Your task to perform on an android device: Open Google Chrome and click the shortcut for Amazon.com Image 0: 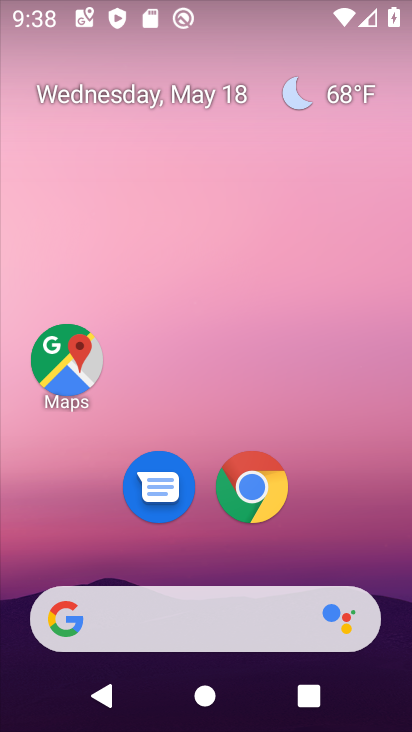
Step 0: drag from (348, 550) to (321, 151)
Your task to perform on an android device: Open Google Chrome and click the shortcut for Amazon.com Image 1: 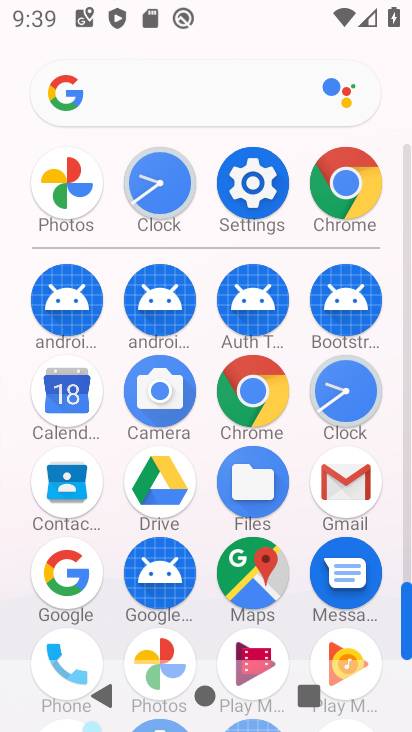
Step 1: drag from (214, 576) to (196, 317)
Your task to perform on an android device: Open Google Chrome and click the shortcut for Amazon.com Image 2: 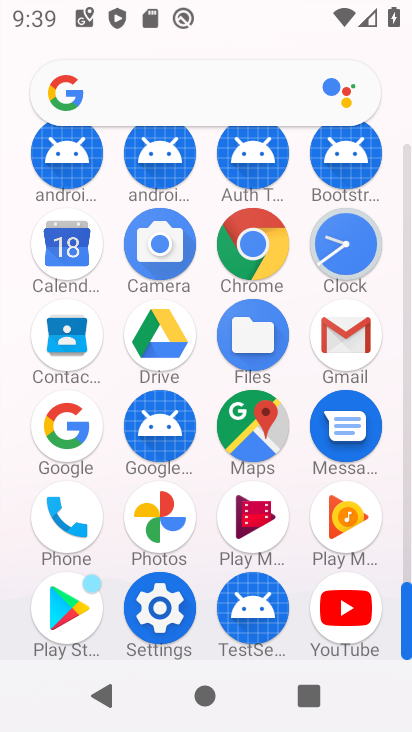
Step 2: click (247, 255)
Your task to perform on an android device: Open Google Chrome and click the shortcut for Amazon.com Image 3: 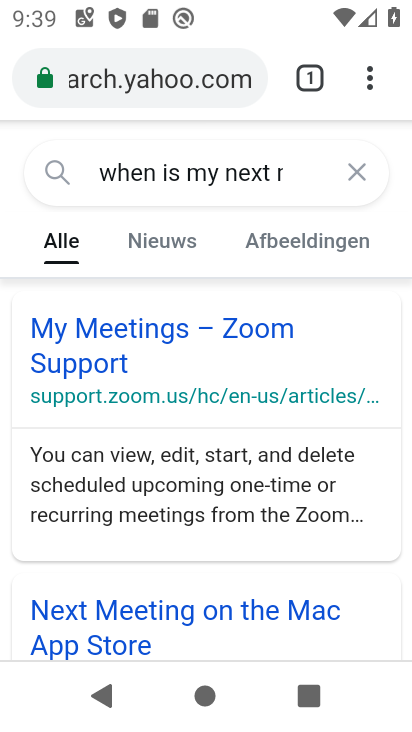
Step 3: click (307, 98)
Your task to perform on an android device: Open Google Chrome and click the shortcut for Amazon.com Image 4: 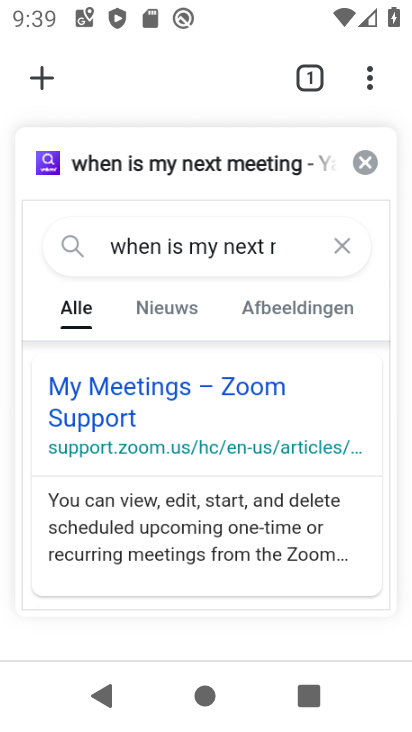
Step 4: click (34, 76)
Your task to perform on an android device: Open Google Chrome and click the shortcut for Amazon.com Image 5: 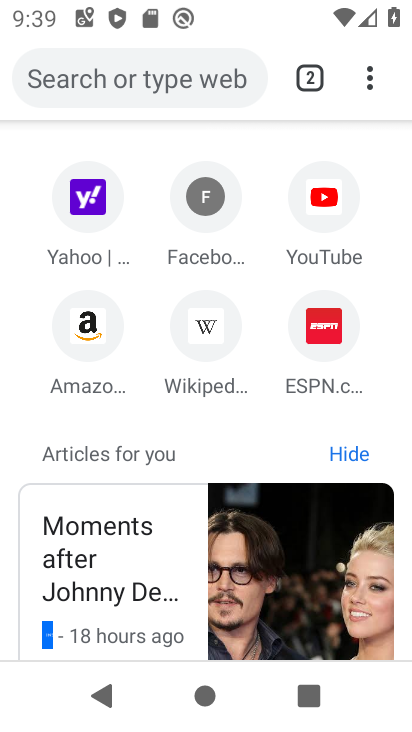
Step 5: click (99, 337)
Your task to perform on an android device: Open Google Chrome and click the shortcut for Amazon.com Image 6: 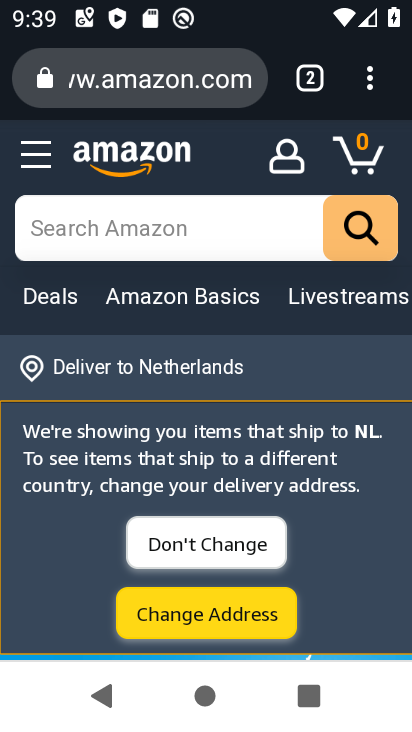
Step 6: task complete